Your task to perform on an android device: Play the last video I watched on Youtube Image 0: 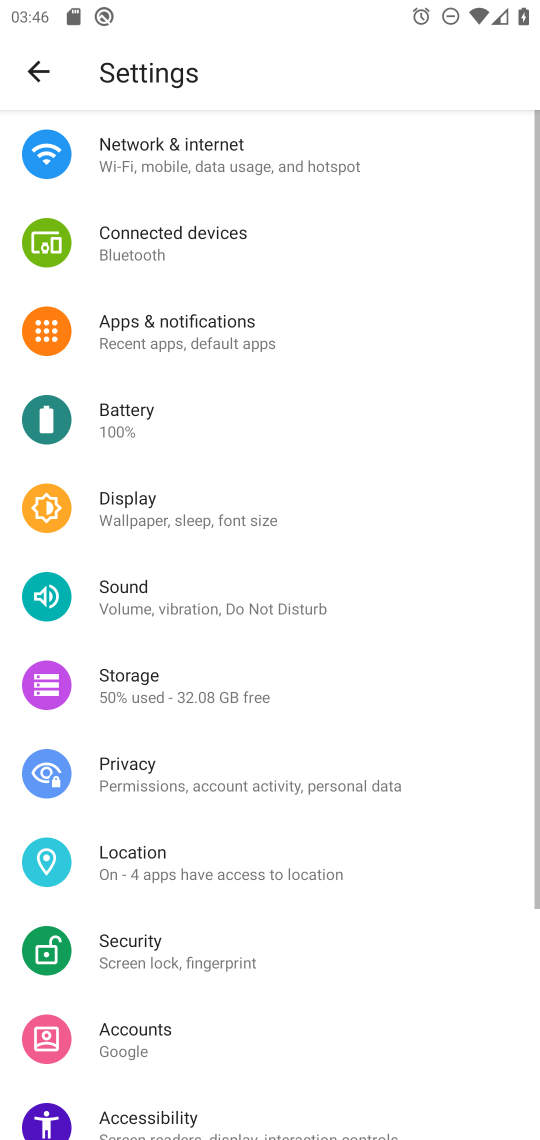
Step 0: press home button
Your task to perform on an android device: Play the last video I watched on Youtube Image 1: 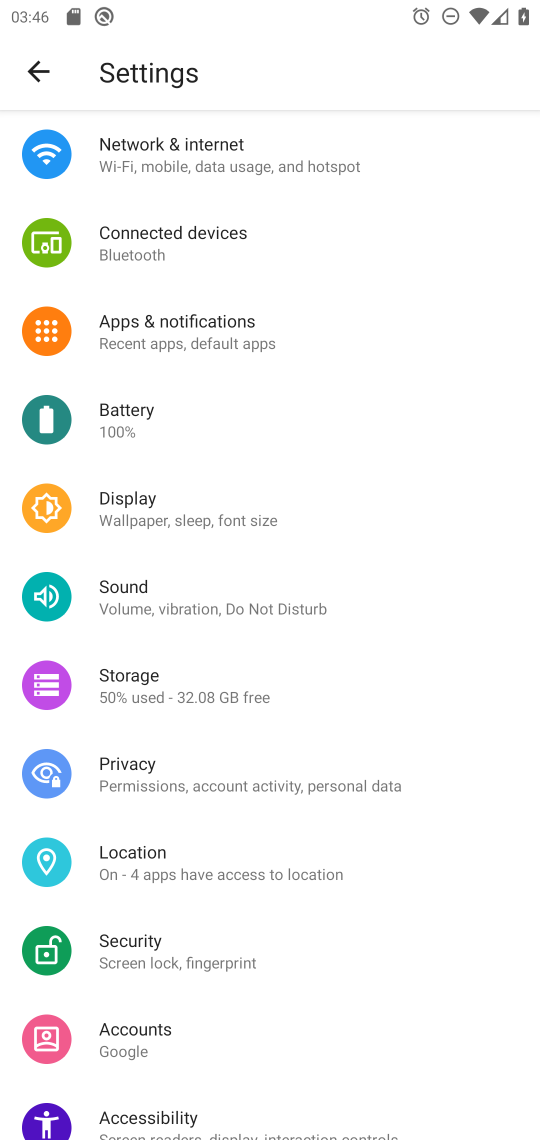
Step 1: press home button
Your task to perform on an android device: Play the last video I watched on Youtube Image 2: 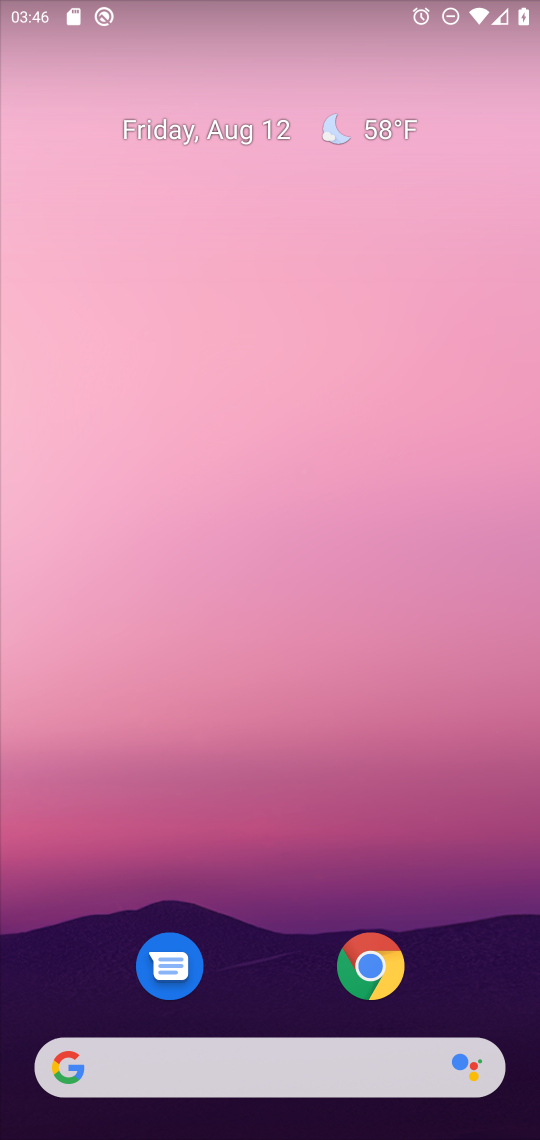
Step 2: drag from (258, 885) to (348, 33)
Your task to perform on an android device: Play the last video I watched on Youtube Image 3: 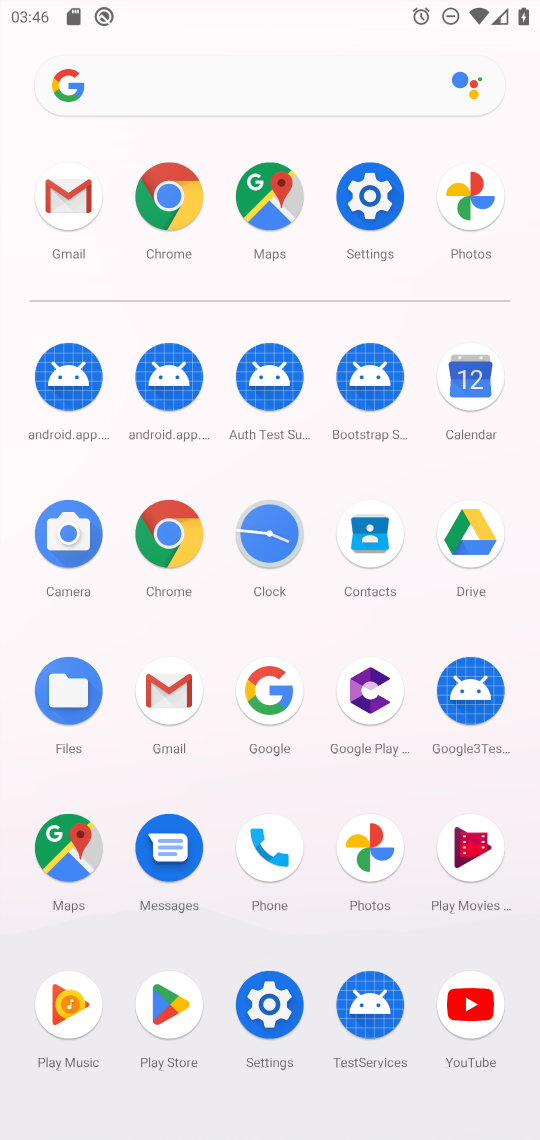
Step 3: click (483, 1004)
Your task to perform on an android device: Play the last video I watched on Youtube Image 4: 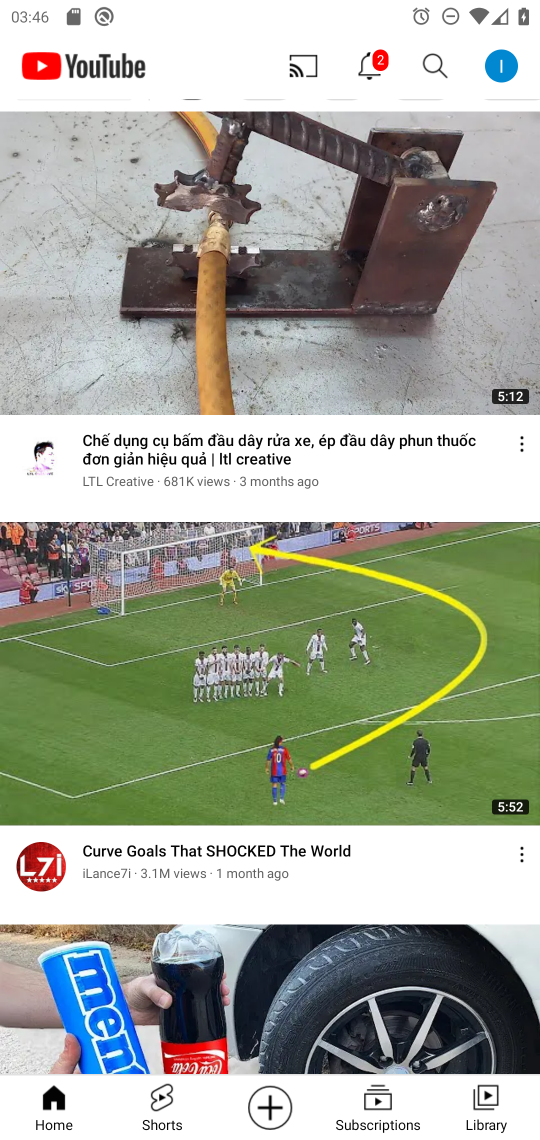
Step 4: click (476, 1094)
Your task to perform on an android device: Play the last video I watched on Youtube Image 5: 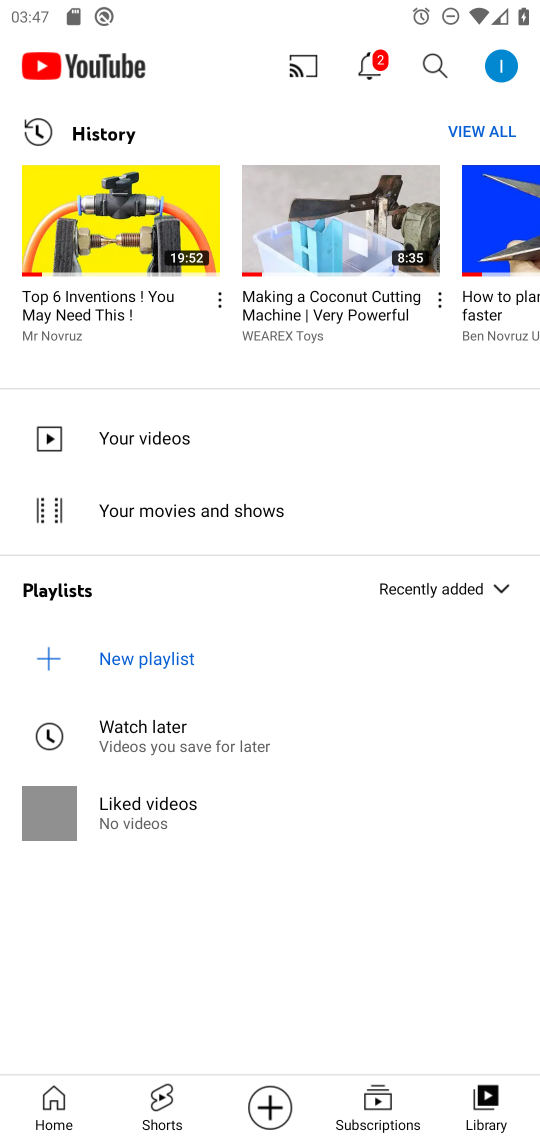
Step 5: click (105, 428)
Your task to perform on an android device: Play the last video I watched on Youtube Image 6: 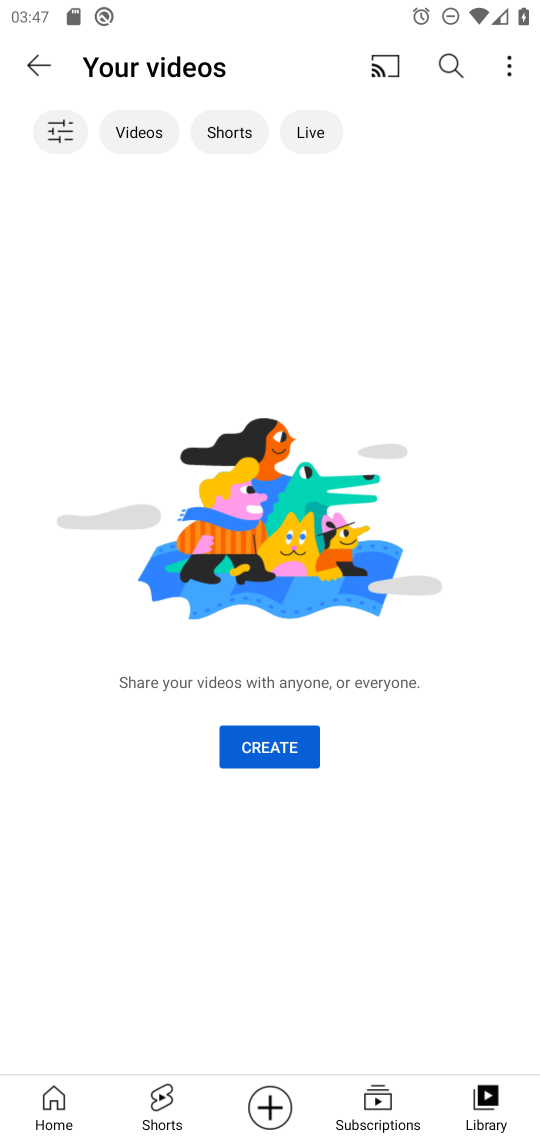
Step 6: click (20, 50)
Your task to perform on an android device: Play the last video I watched on Youtube Image 7: 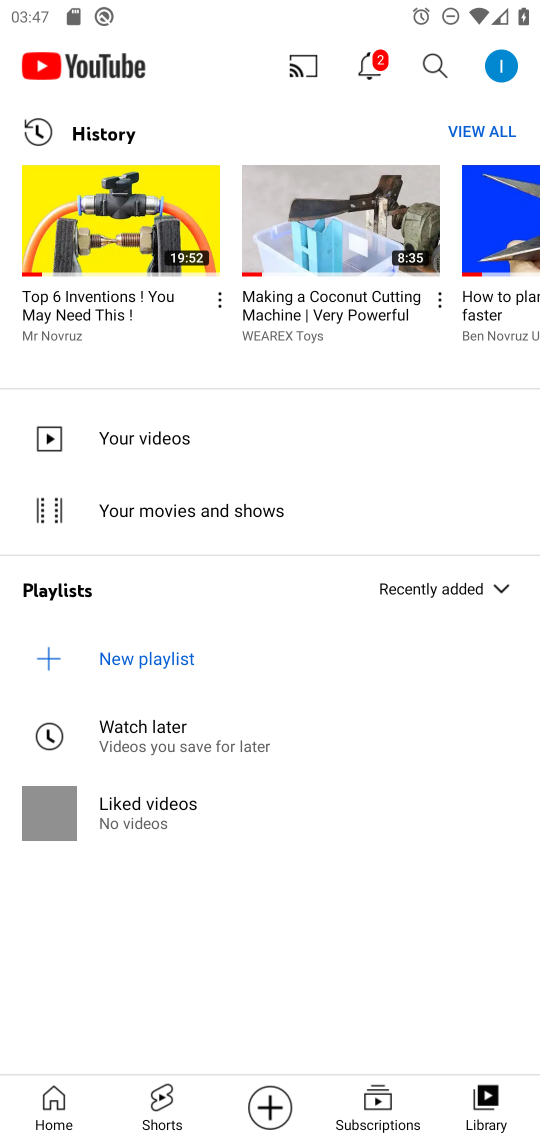
Step 7: click (124, 202)
Your task to perform on an android device: Play the last video I watched on Youtube Image 8: 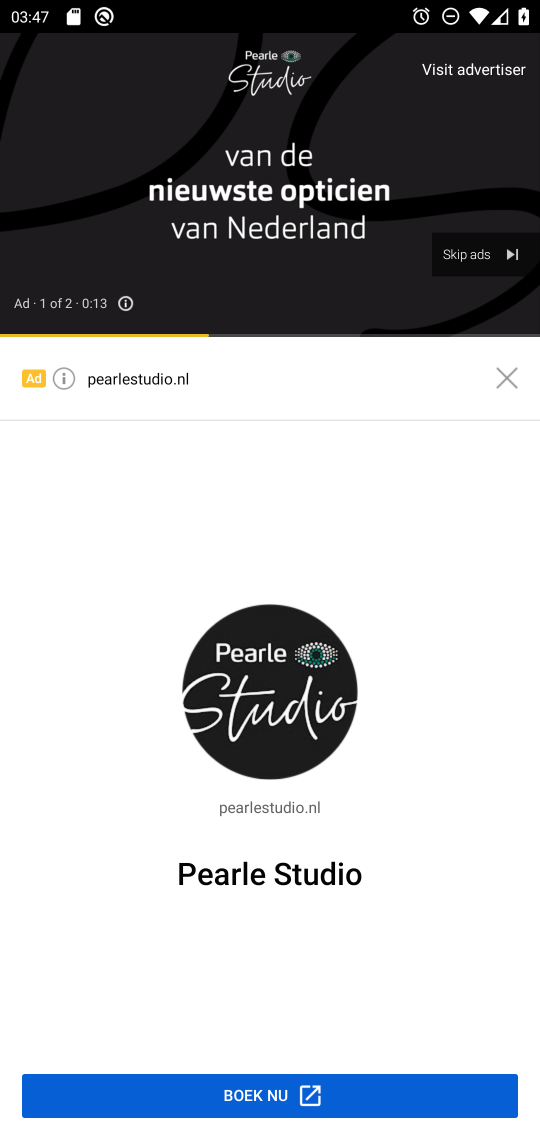
Step 8: click (476, 251)
Your task to perform on an android device: Play the last video I watched on Youtube Image 9: 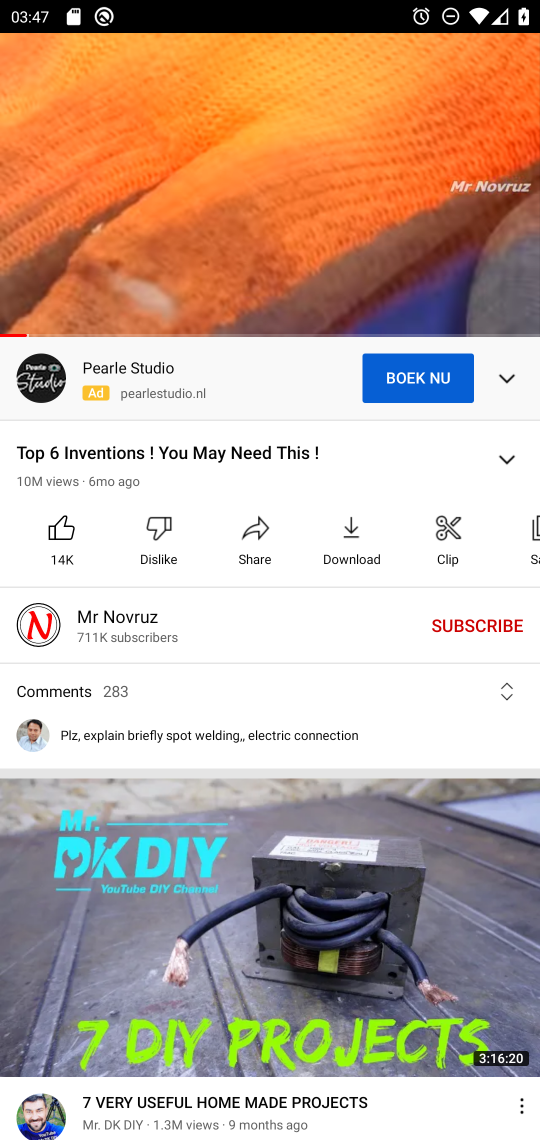
Step 9: task complete